Your task to perform on an android device: Go to ESPN.com Image 0: 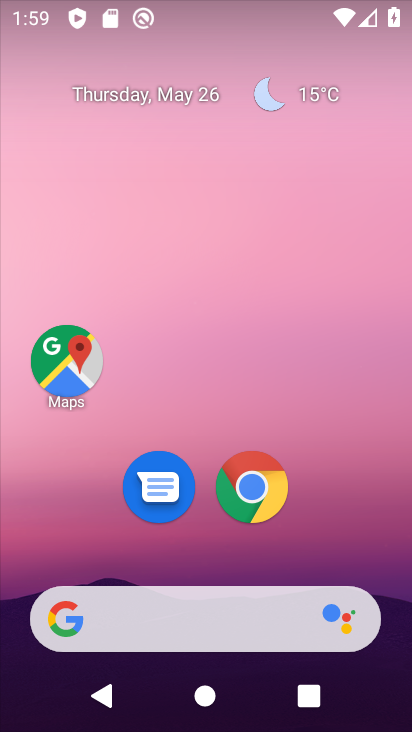
Step 0: click (275, 497)
Your task to perform on an android device: Go to ESPN.com Image 1: 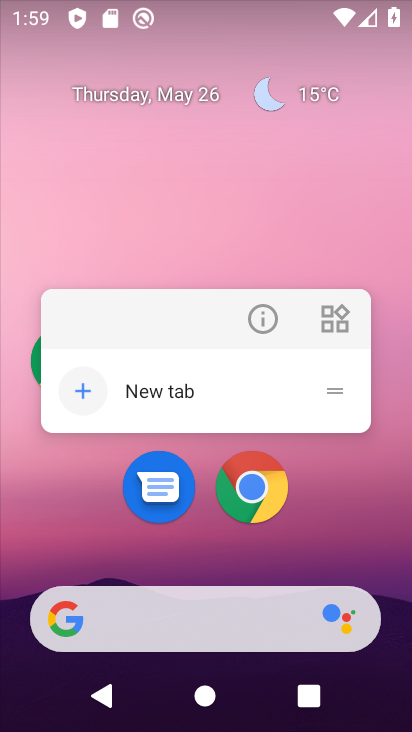
Step 1: click (274, 470)
Your task to perform on an android device: Go to ESPN.com Image 2: 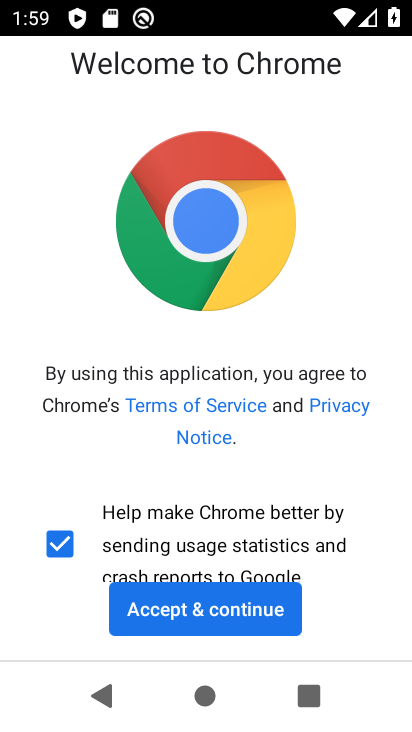
Step 2: click (183, 596)
Your task to perform on an android device: Go to ESPN.com Image 3: 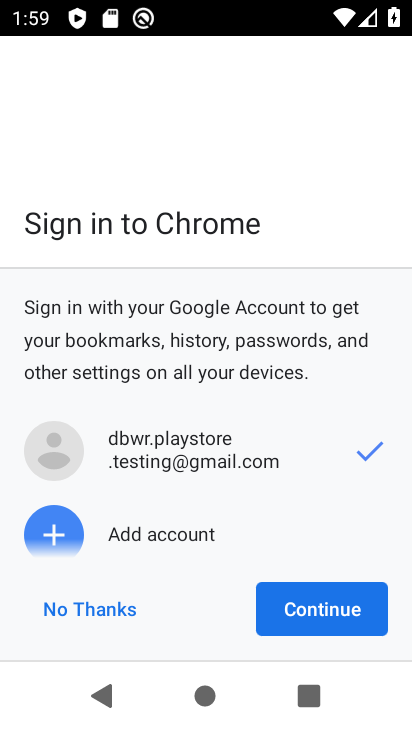
Step 3: click (283, 594)
Your task to perform on an android device: Go to ESPN.com Image 4: 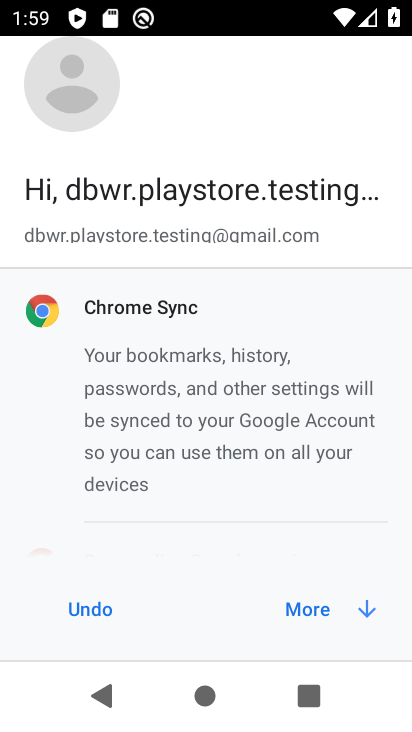
Step 4: click (283, 594)
Your task to perform on an android device: Go to ESPN.com Image 5: 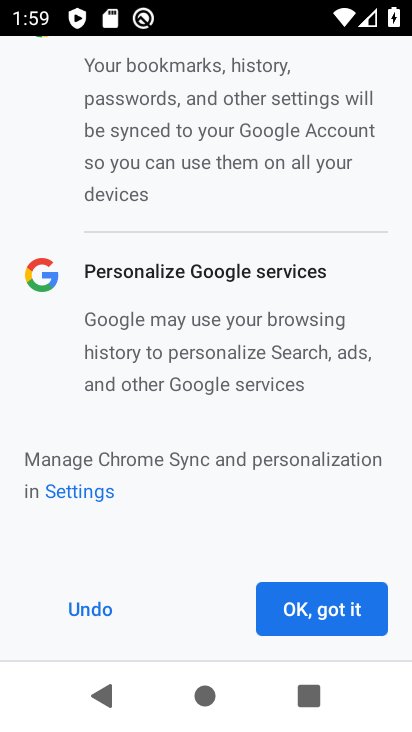
Step 5: click (283, 594)
Your task to perform on an android device: Go to ESPN.com Image 6: 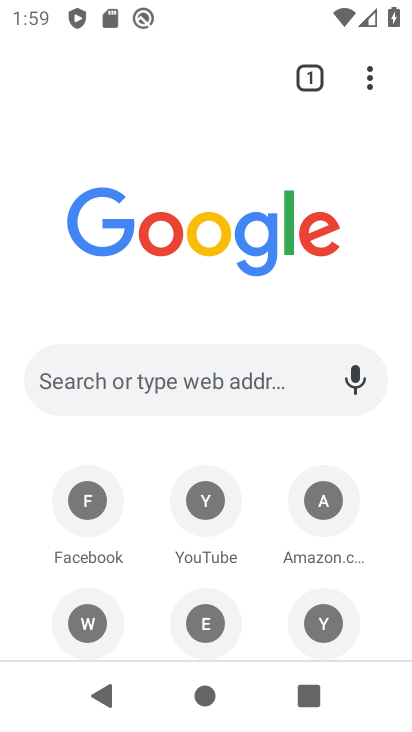
Step 6: click (209, 371)
Your task to perform on an android device: Go to ESPN.com Image 7: 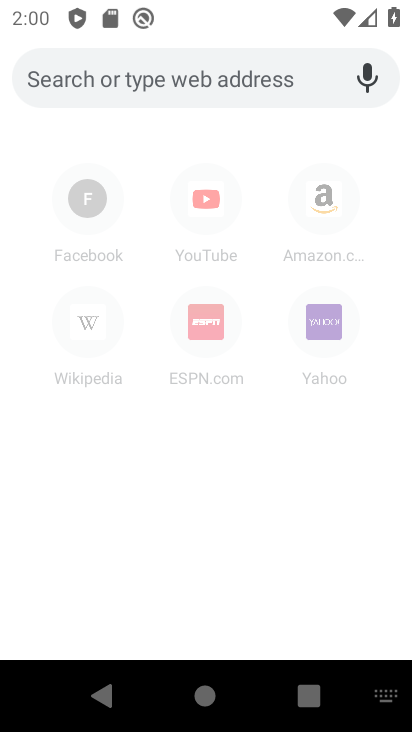
Step 7: type "ESPN.com"
Your task to perform on an android device: Go to ESPN.com Image 8: 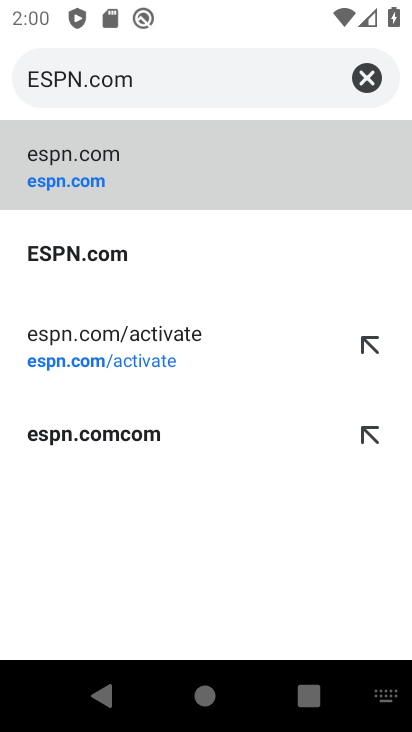
Step 8: click (87, 160)
Your task to perform on an android device: Go to ESPN.com Image 9: 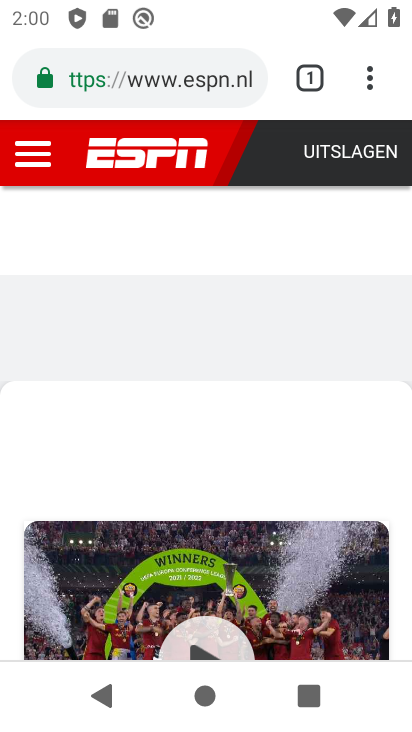
Step 9: task complete